Your task to perform on an android device: Is it going to rain today? Image 0: 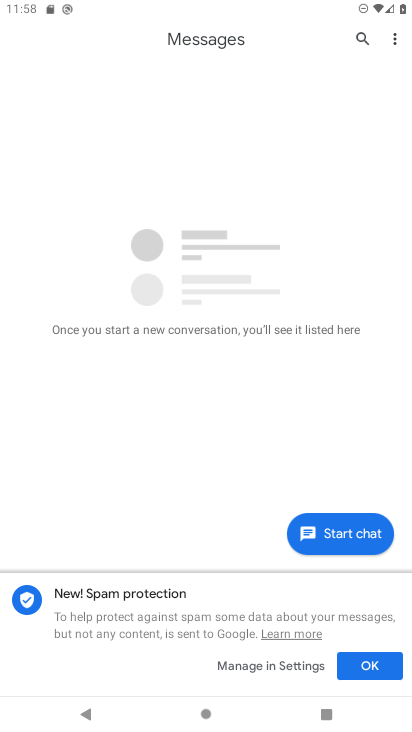
Step 0: press home button
Your task to perform on an android device: Is it going to rain today? Image 1: 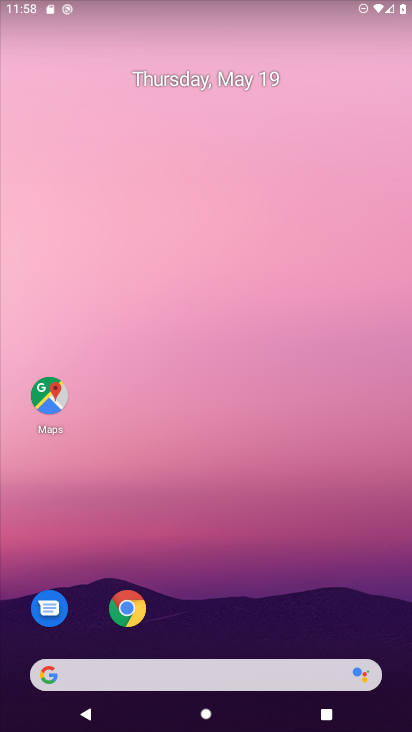
Step 1: click (128, 621)
Your task to perform on an android device: Is it going to rain today? Image 2: 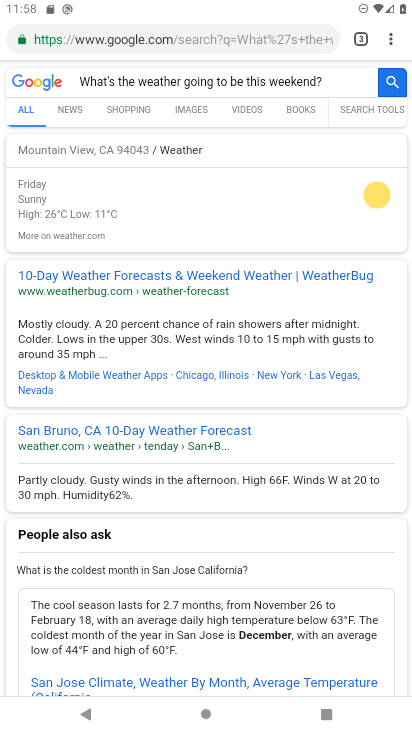
Step 2: click (125, 43)
Your task to perform on an android device: Is it going to rain today? Image 3: 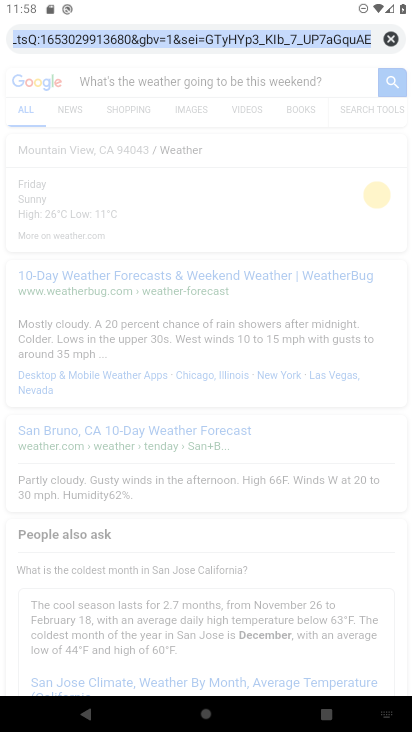
Step 3: click (387, 41)
Your task to perform on an android device: Is it going to rain today? Image 4: 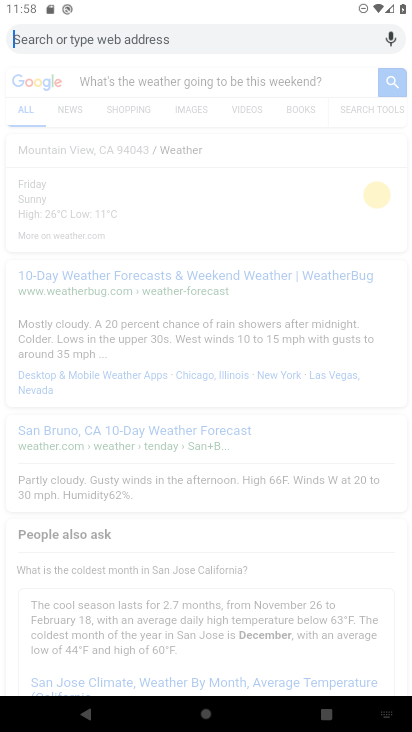
Step 4: click (355, 41)
Your task to perform on an android device: Is it going to rain today? Image 5: 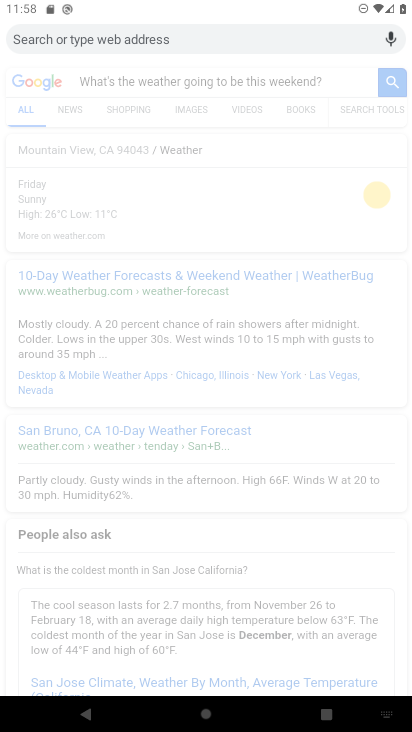
Step 5: type "Is it going to rain today?"
Your task to perform on an android device: Is it going to rain today? Image 6: 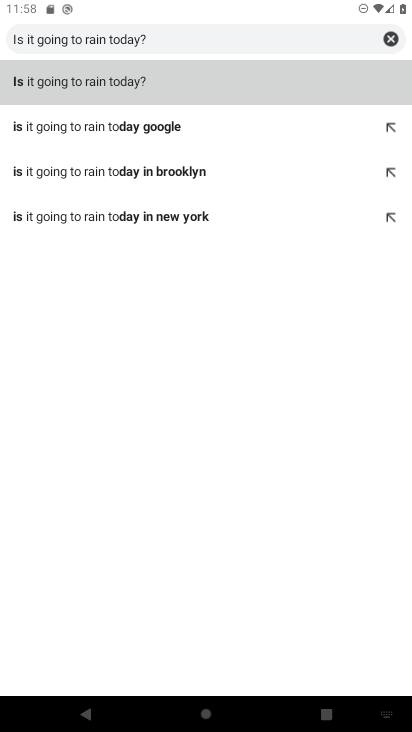
Step 6: click (44, 71)
Your task to perform on an android device: Is it going to rain today? Image 7: 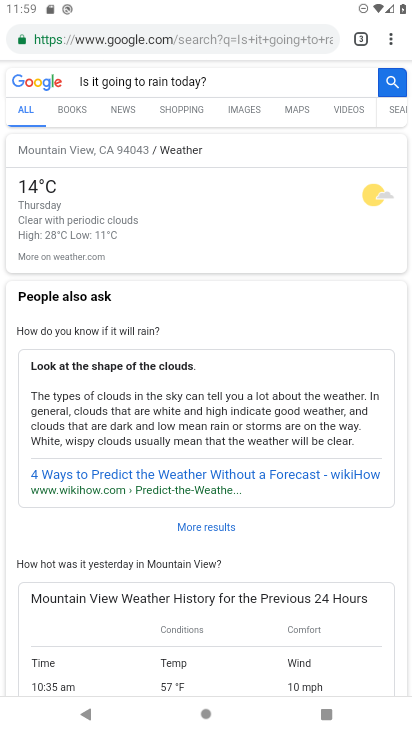
Step 7: task complete